Your task to perform on an android device: Play the last video I watched on Youtube Image 0: 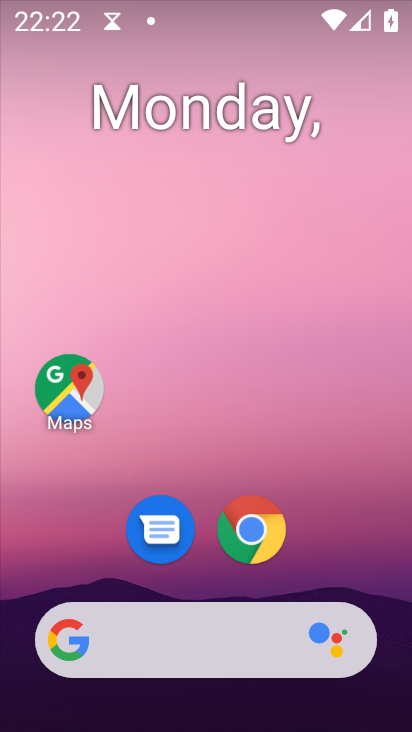
Step 0: drag from (347, 555) to (314, 44)
Your task to perform on an android device: Play the last video I watched on Youtube Image 1: 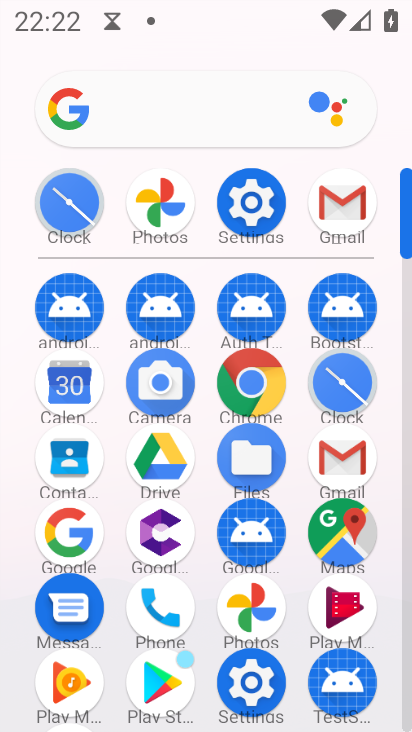
Step 1: drag from (295, 656) to (331, 260)
Your task to perform on an android device: Play the last video I watched on Youtube Image 2: 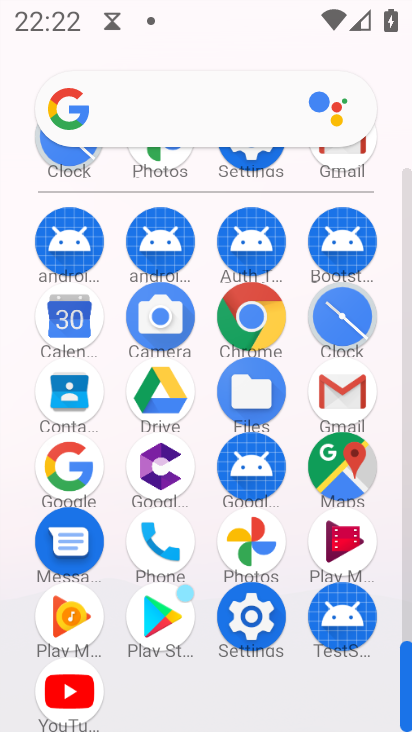
Step 2: click (70, 691)
Your task to perform on an android device: Play the last video I watched on Youtube Image 3: 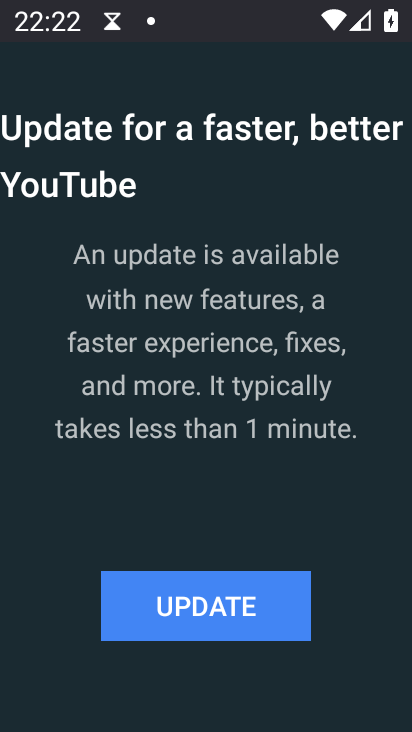
Step 3: click (218, 617)
Your task to perform on an android device: Play the last video I watched on Youtube Image 4: 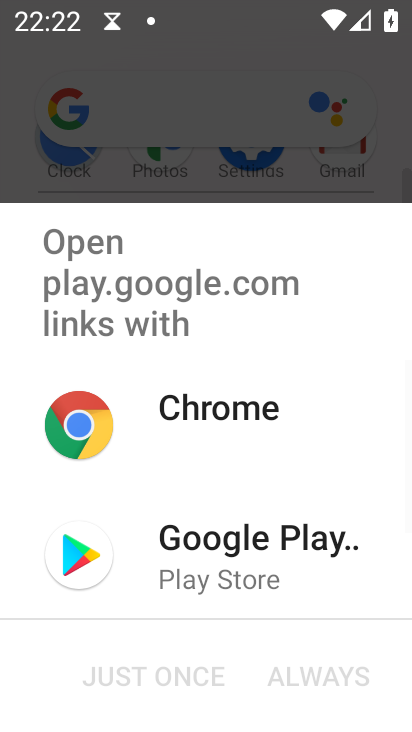
Step 4: click (233, 535)
Your task to perform on an android device: Play the last video I watched on Youtube Image 5: 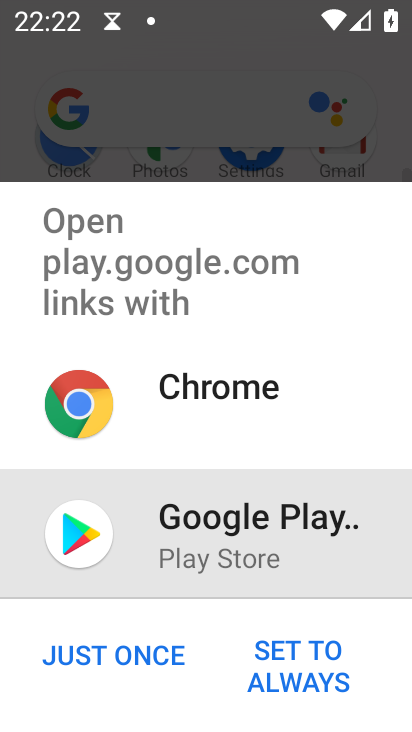
Step 5: click (76, 662)
Your task to perform on an android device: Play the last video I watched on Youtube Image 6: 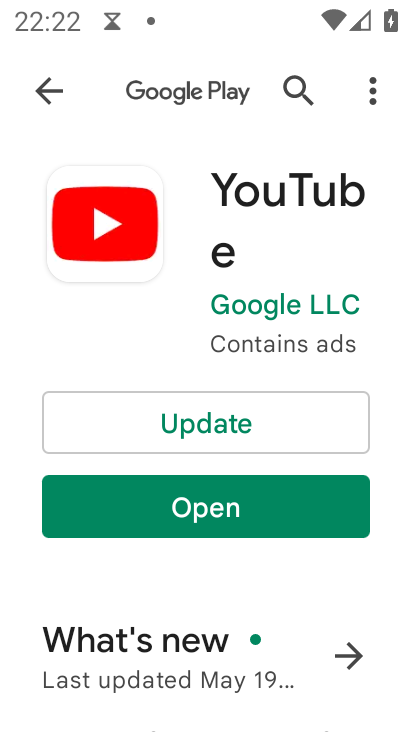
Step 6: click (222, 435)
Your task to perform on an android device: Play the last video I watched on Youtube Image 7: 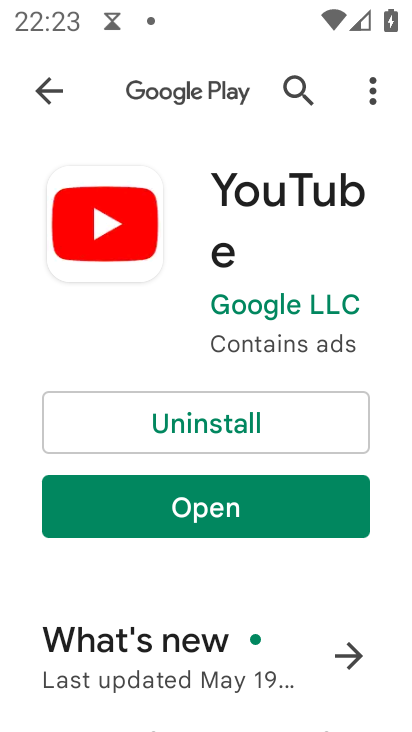
Step 7: click (231, 502)
Your task to perform on an android device: Play the last video I watched on Youtube Image 8: 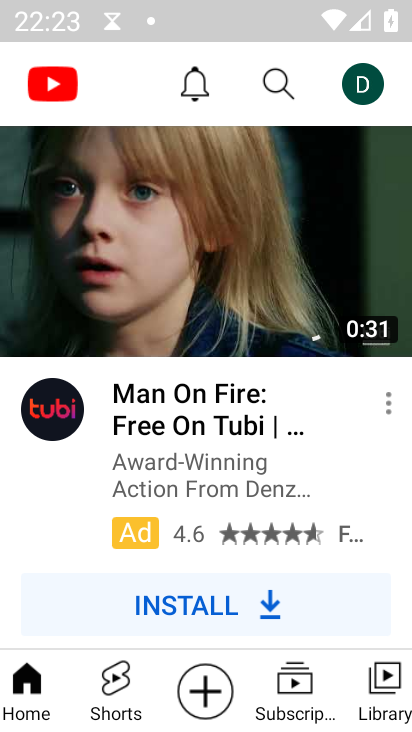
Step 8: click (380, 682)
Your task to perform on an android device: Play the last video I watched on Youtube Image 9: 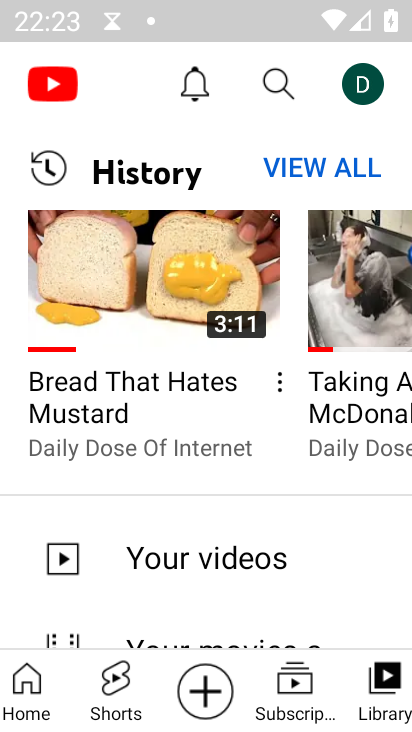
Step 9: click (144, 281)
Your task to perform on an android device: Play the last video I watched on Youtube Image 10: 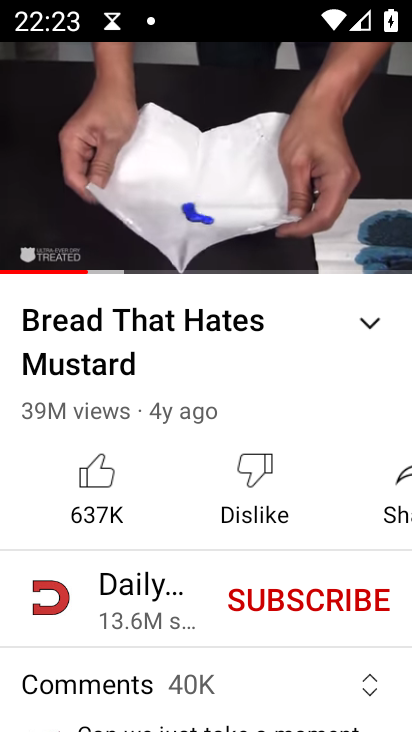
Step 10: click (191, 148)
Your task to perform on an android device: Play the last video I watched on Youtube Image 11: 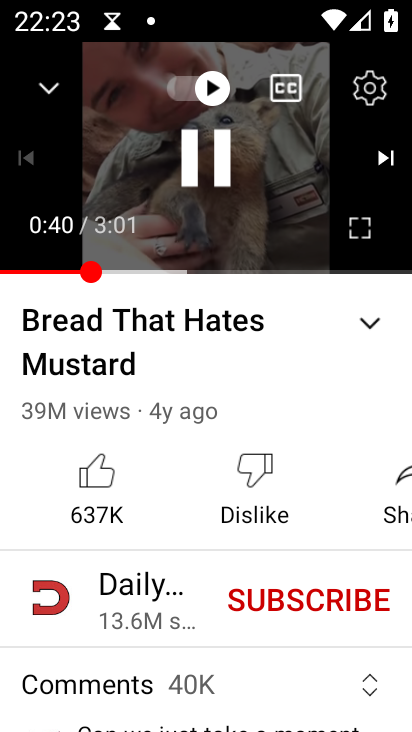
Step 11: click (191, 148)
Your task to perform on an android device: Play the last video I watched on Youtube Image 12: 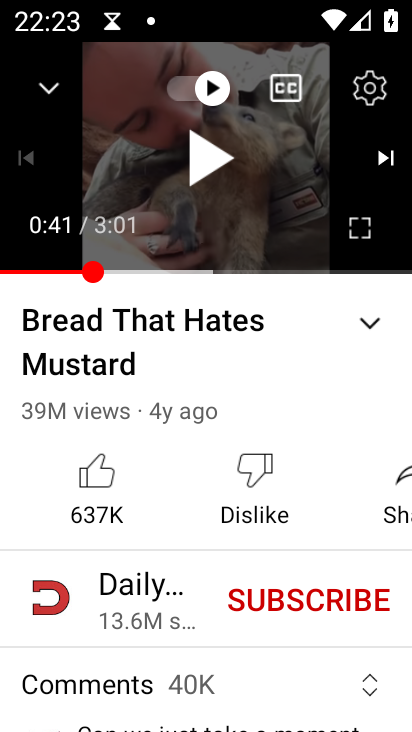
Step 12: task complete